Your task to perform on an android device: check data usage Image 0: 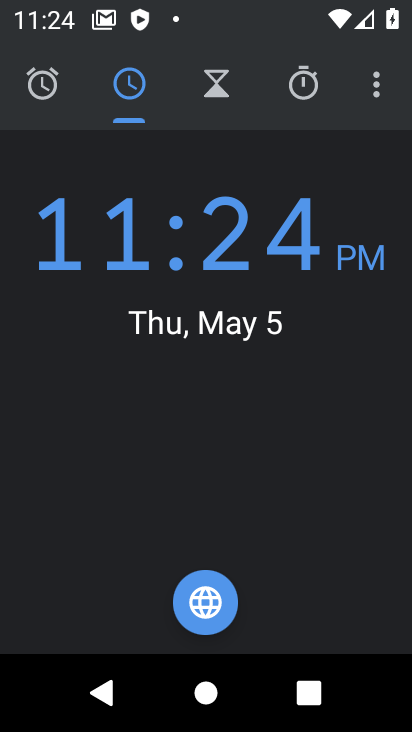
Step 0: press home button
Your task to perform on an android device: check data usage Image 1: 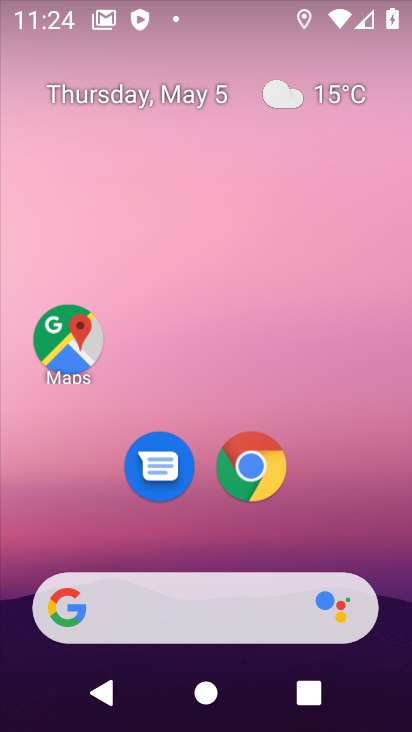
Step 1: drag from (168, 545) to (200, 84)
Your task to perform on an android device: check data usage Image 2: 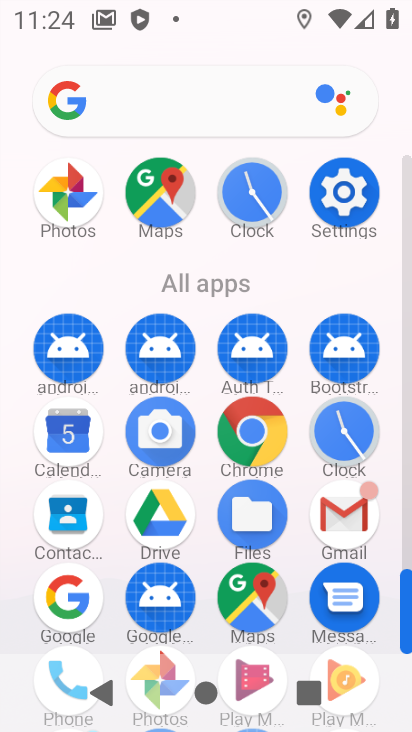
Step 2: click (338, 183)
Your task to perform on an android device: check data usage Image 3: 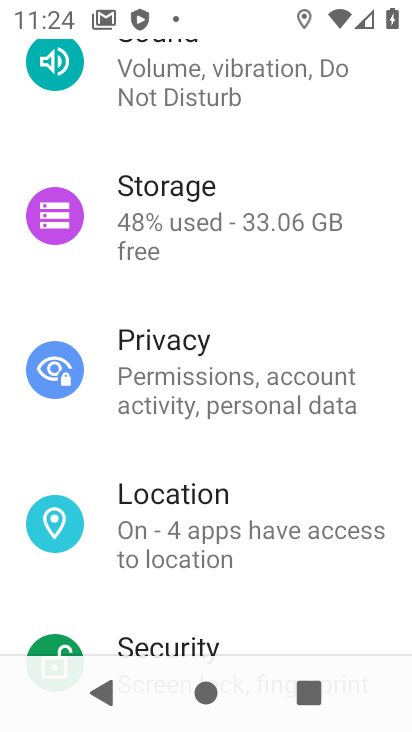
Step 3: drag from (238, 279) to (271, 514)
Your task to perform on an android device: check data usage Image 4: 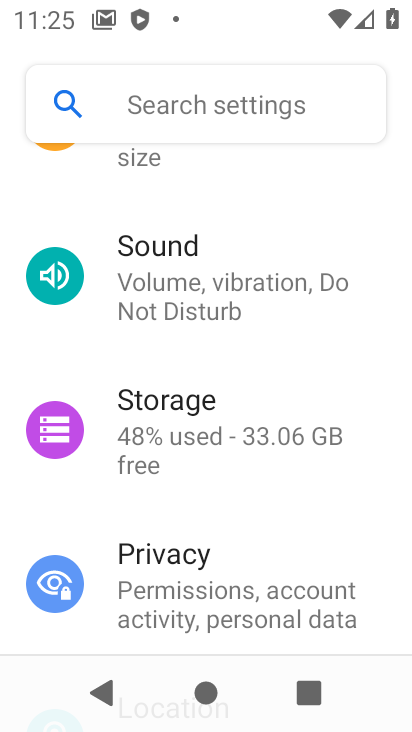
Step 4: drag from (252, 228) to (279, 532)
Your task to perform on an android device: check data usage Image 5: 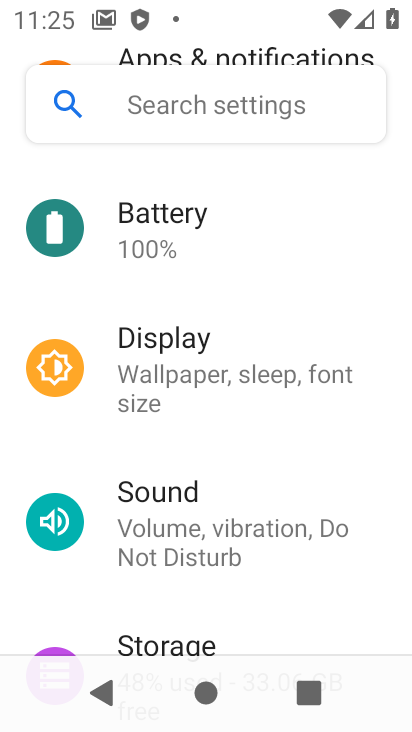
Step 5: drag from (231, 238) to (247, 486)
Your task to perform on an android device: check data usage Image 6: 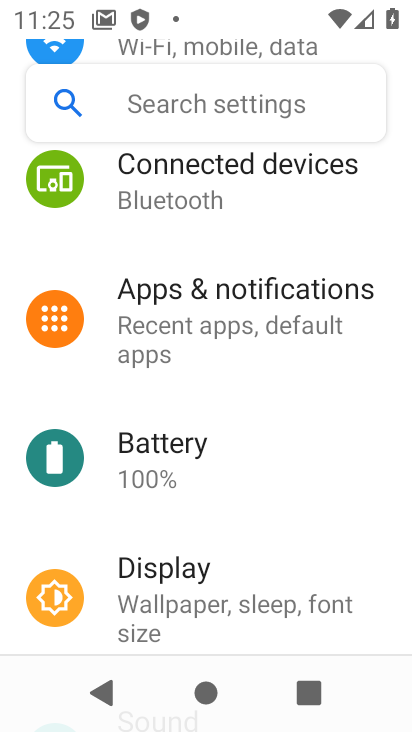
Step 6: drag from (242, 228) to (257, 539)
Your task to perform on an android device: check data usage Image 7: 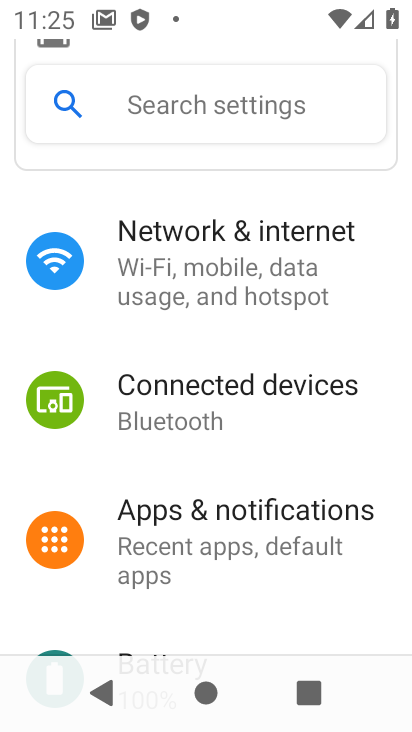
Step 7: click (230, 276)
Your task to perform on an android device: check data usage Image 8: 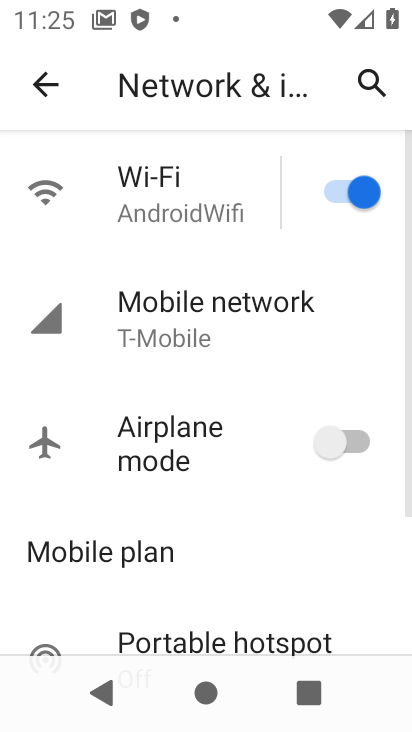
Step 8: drag from (204, 573) to (264, 157)
Your task to perform on an android device: check data usage Image 9: 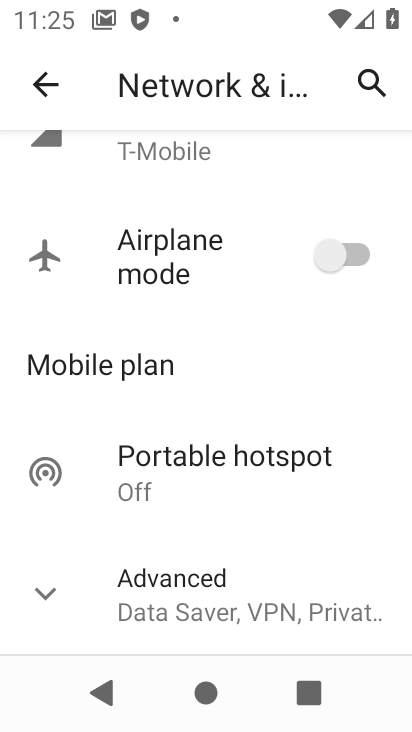
Step 9: click (52, 587)
Your task to perform on an android device: check data usage Image 10: 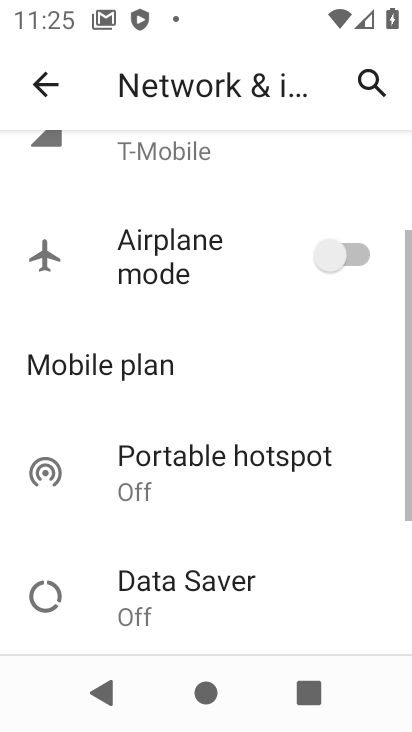
Step 10: drag from (215, 529) to (250, 185)
Your task to perform on an android device: check data usage Image 11: 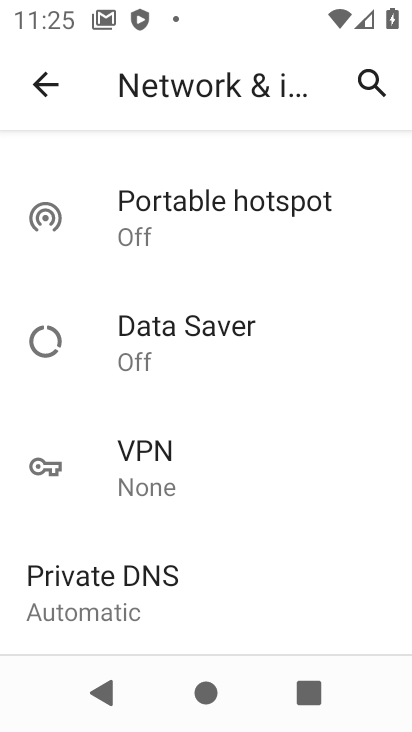
Step 11: drag from (205, 501) to (260, 145)
Your task to perform on an android device: check data usage Image 12: 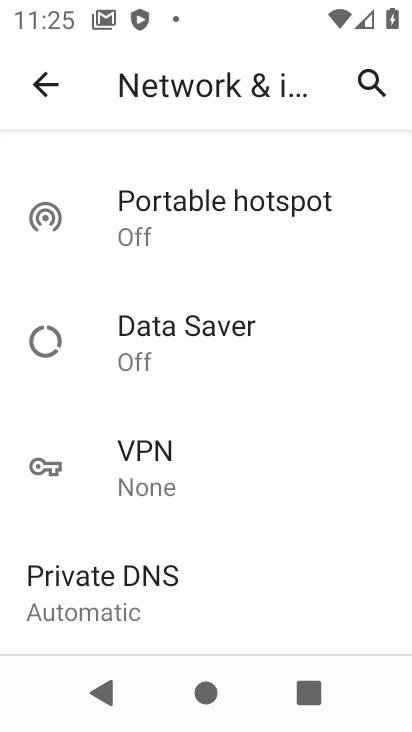
Step 12: drag from (230, 234) to (295, 652)
Your task to perform on an android device: check data usage Image 13: 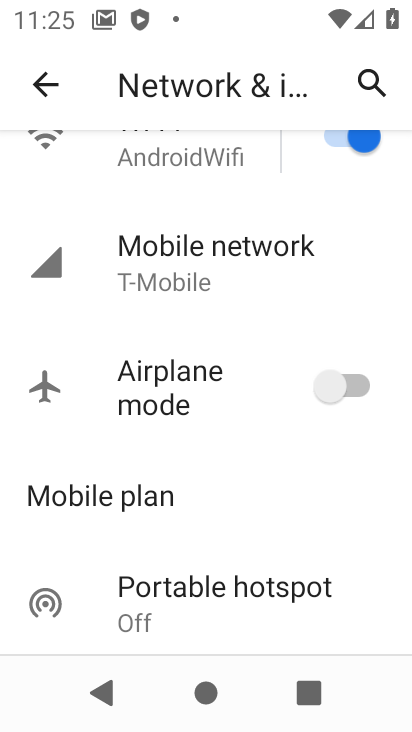
Step 13: drag from (221, 255) to (196, 551)
Your task to perform on an android device: check data usage Image 14: 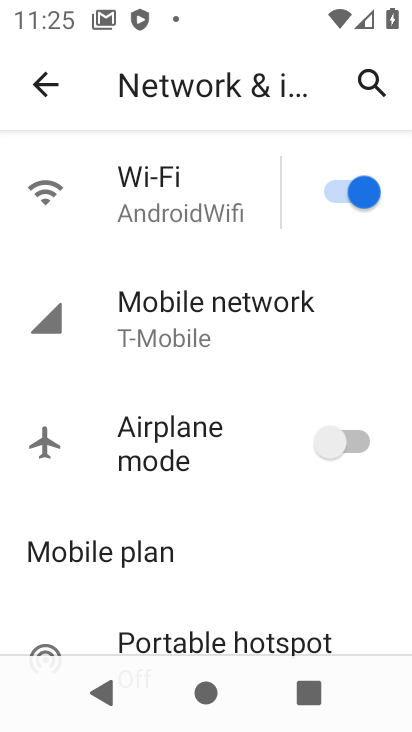
Step 14: click (190, 330)
Your task to perform on an android device: check data usage Image 15: 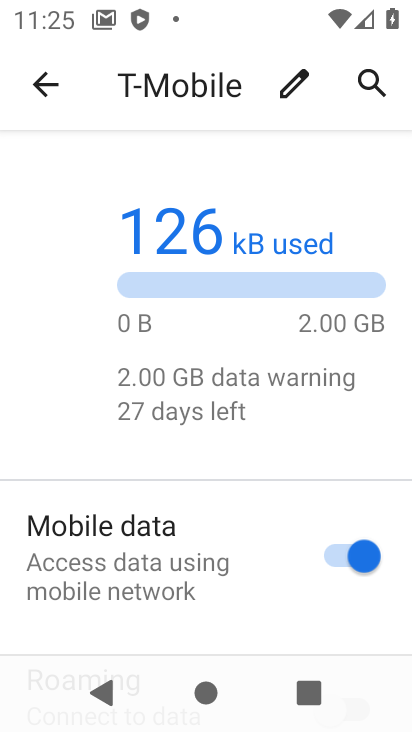
Step 15: drag from (194, 612) to (198, 209)
Your task to perform on an android device: check data usage Image 16: 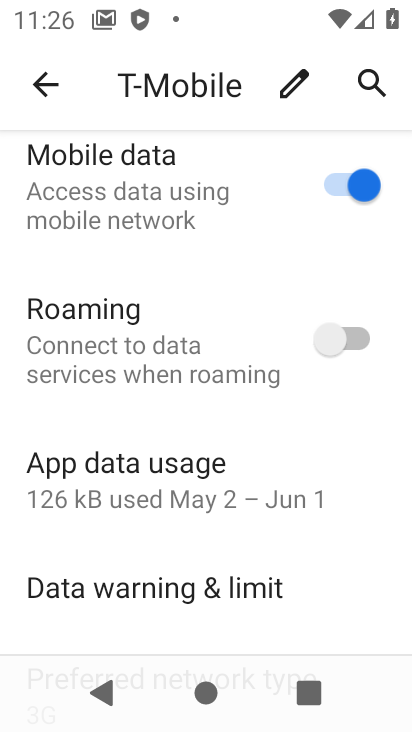
Step 16: drag from (156, 552) to (183, 243)
Your task to perform on an android device: check data usage Image 17: 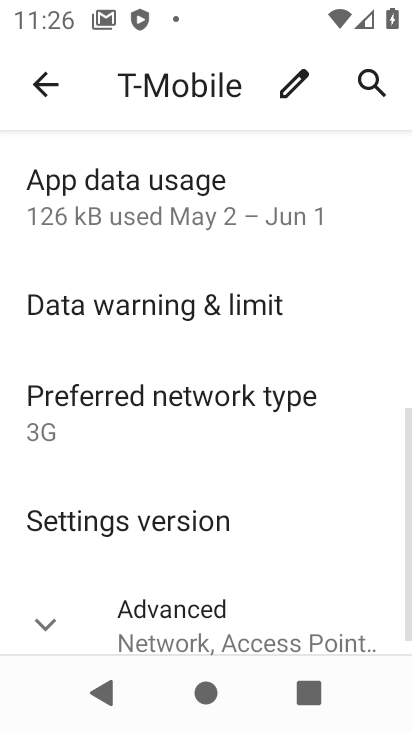
Step 17: click (149, 193)
Your task to perform on an android device: check data usage Image 18: 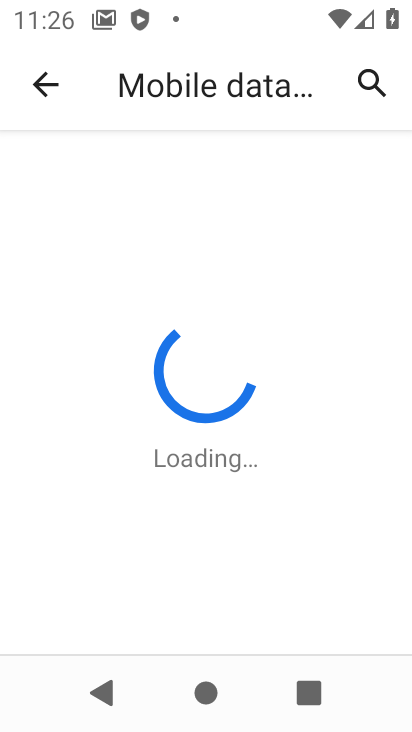
Step 18: task complete